Your task to perform on an android device: Go to Google Image 0: 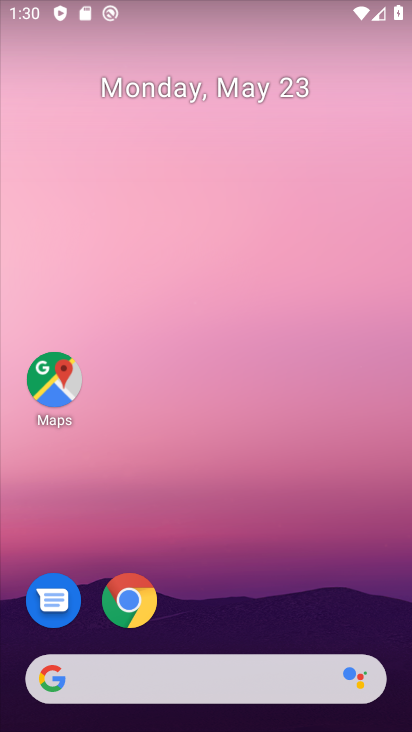
Step 0: drag from (262, 597) to (242, 47)
Your task to perform on an android device: Go to Google Image 1: 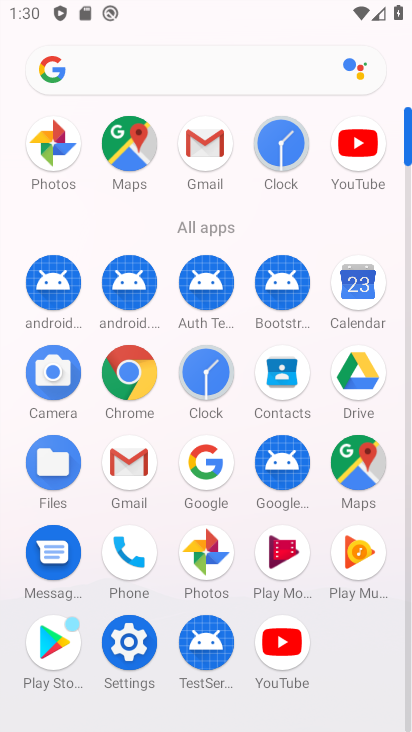
Step 1: click (185, 468)
Your task to perform on an android device: Go to Google Image 2: 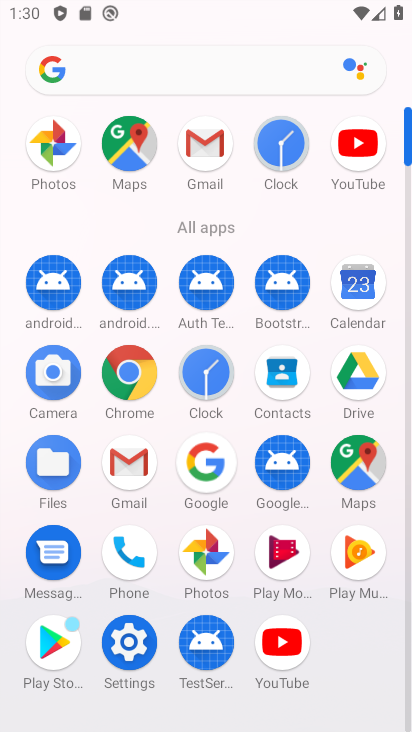
Step 2: task complete